Your task to perform on an android device: Open the phone app and click the voicemail tab. Image 0: 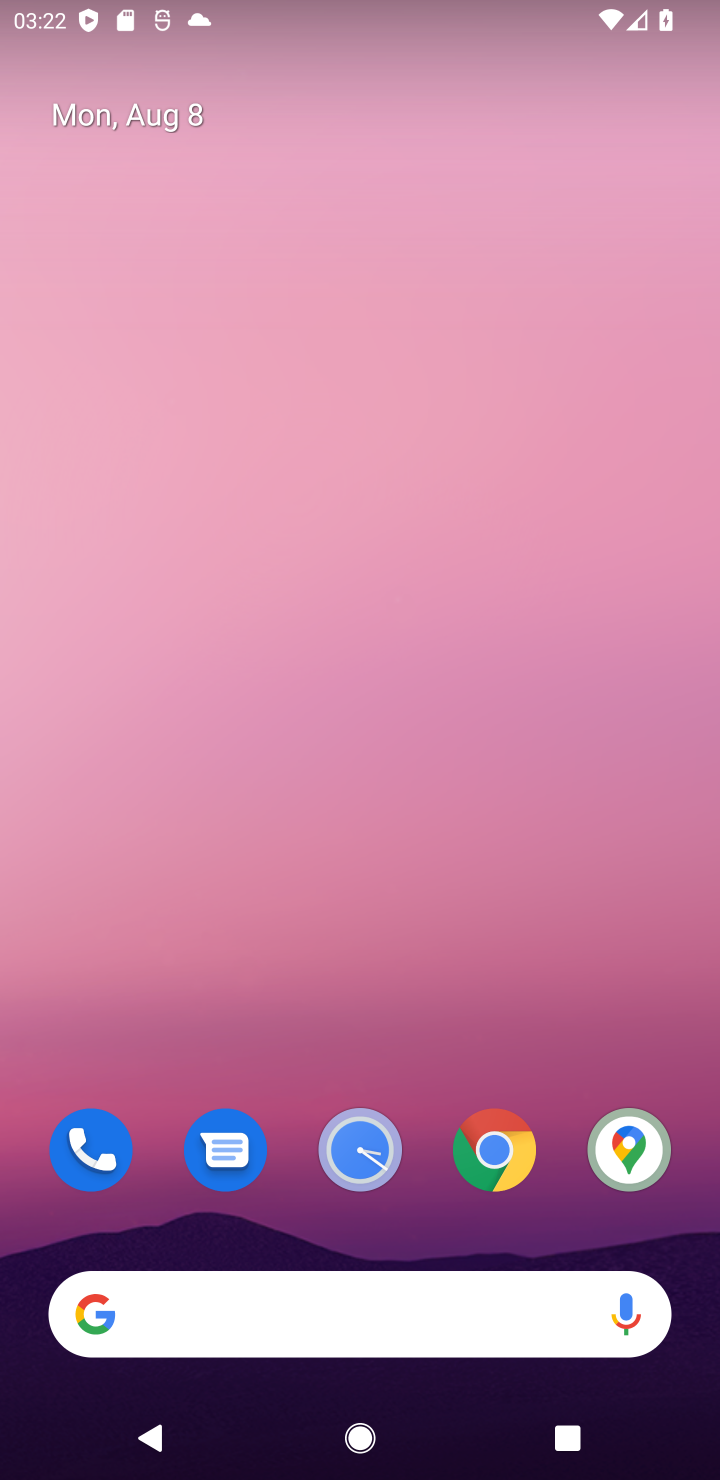
Step 0: click (98, 1169)
Your task to perform on an android device: Open the phone app and click the voicemail tab. Image 1: 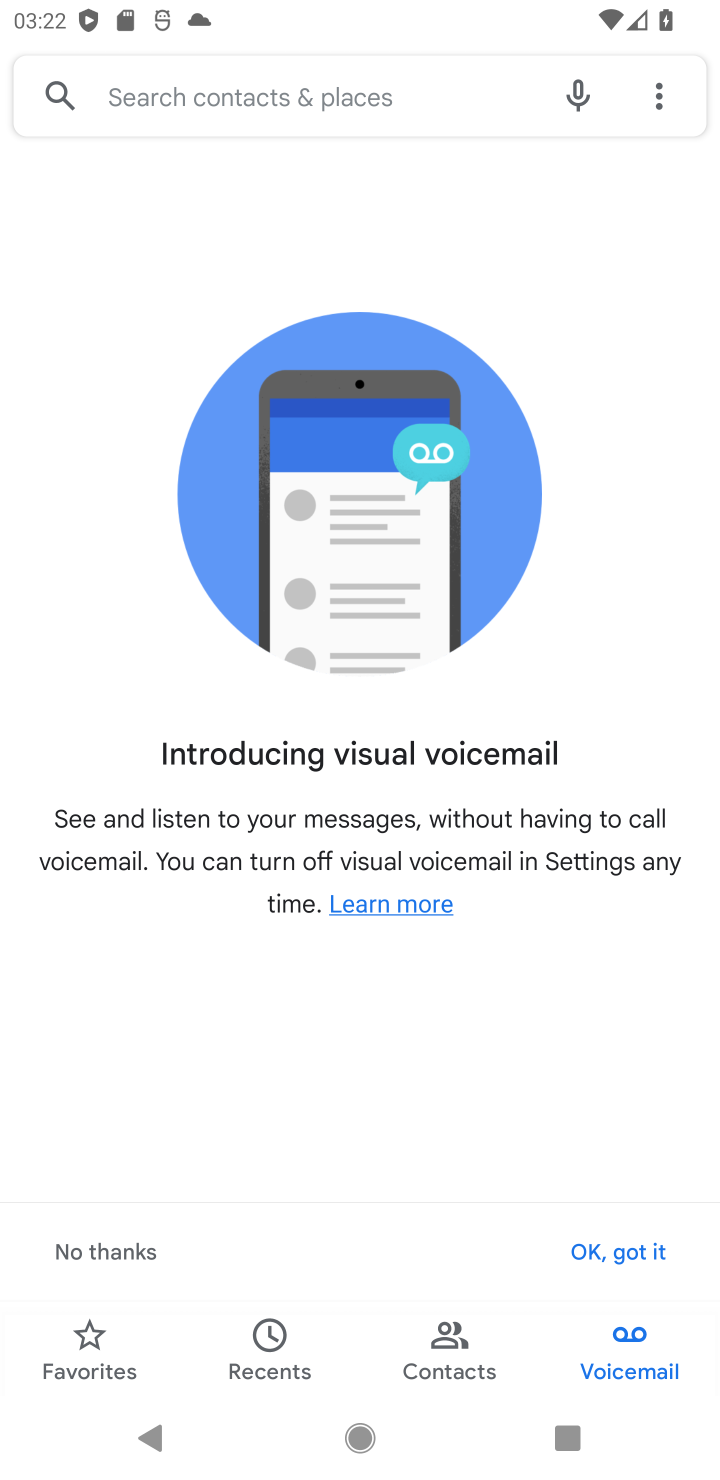
Step 1: task complete